Your task to perform on an android device: Do I have any events tomorrow? Image 0: 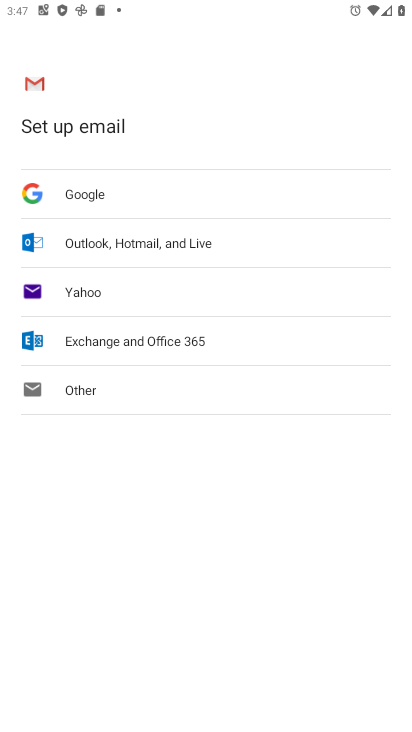
Step 0: task complete